Your task to perform on an android device: Search for the ikea sjalv lamp Image 0: 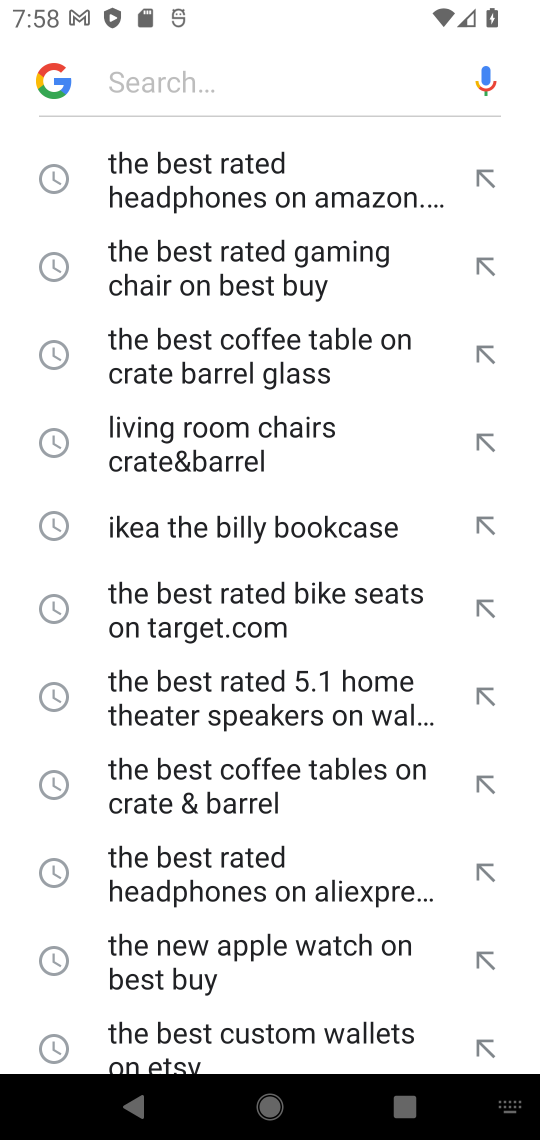
Step 0: type "the ikea sjalv lamp"
Your task to perform on an android device: Search for the ikea sjalv lamp Image 1: 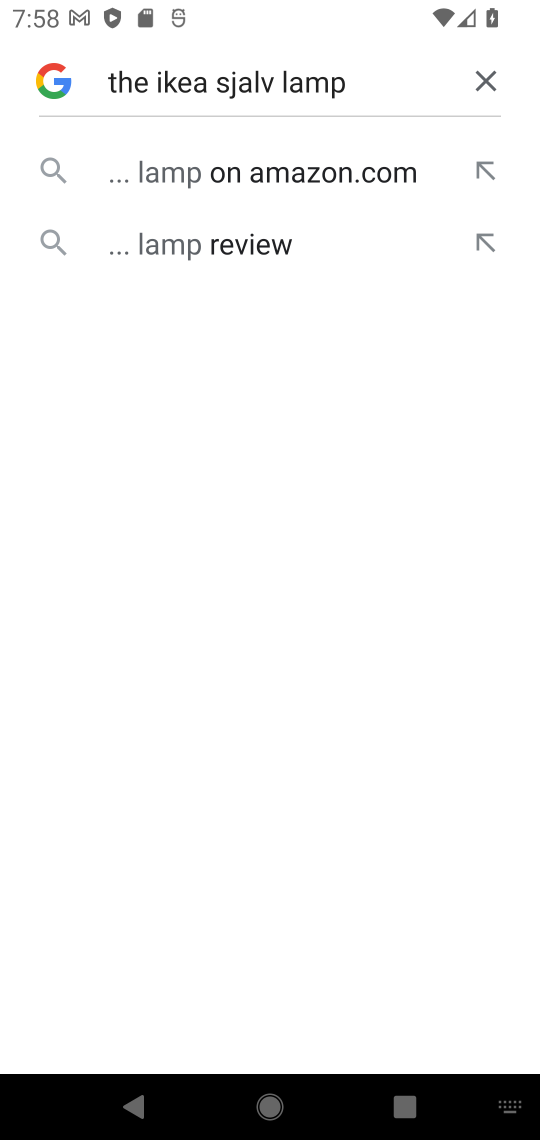
Step 1: click (314, 183)
Your task to perform on an android device: Search for the ikea sjalv lamp Image 2: 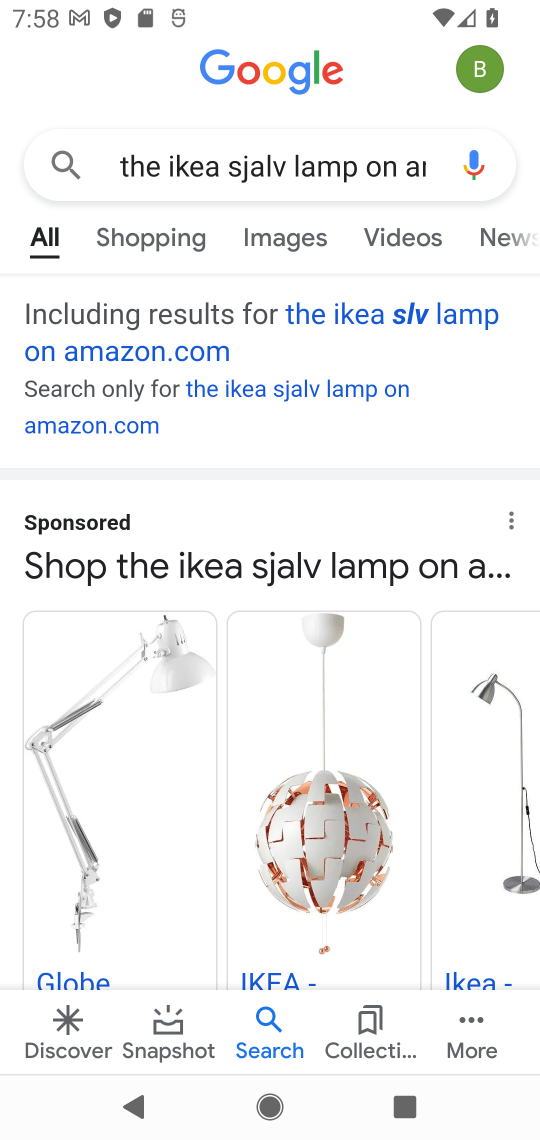
Step 2: task complete